Your task to perform on an android device: Open the settings Image 0: 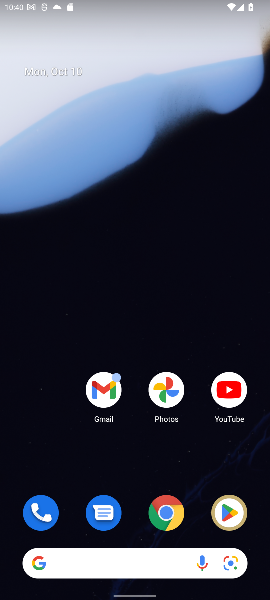
Step 0: drag from (135, 397) to (158, 7)
Your task to perform on an android device: Open the settings Image 1: 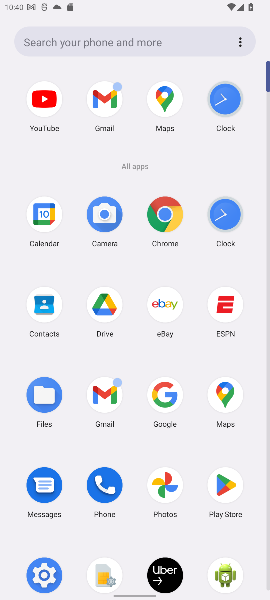
Step 1: click (43, 575)
Your task to perform on an android device: Open the settings Image 2: 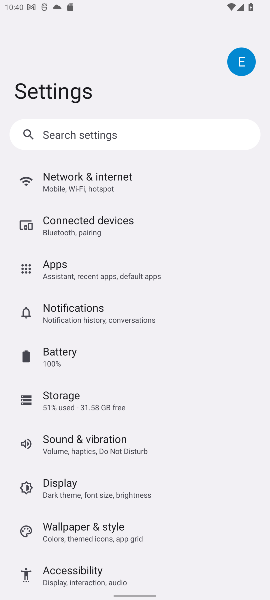
Step 2: task complete